Your task to perform on an android device: turn off smart reply in the gmail app Image 0: 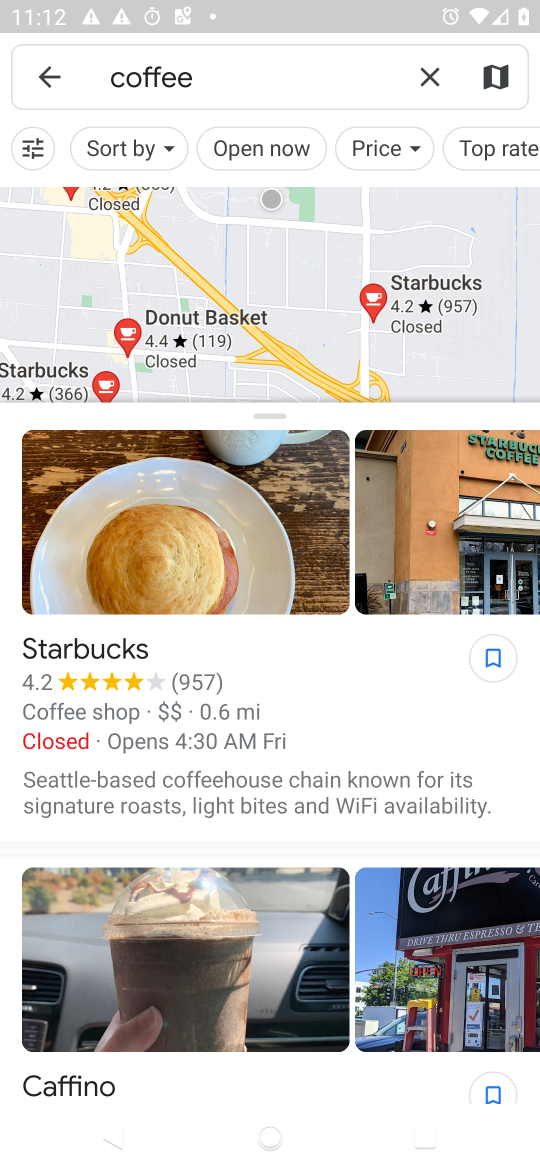
Step 0: press home button
Your task to perform on an android device: turn off smart reply in the gmail app Image 1: 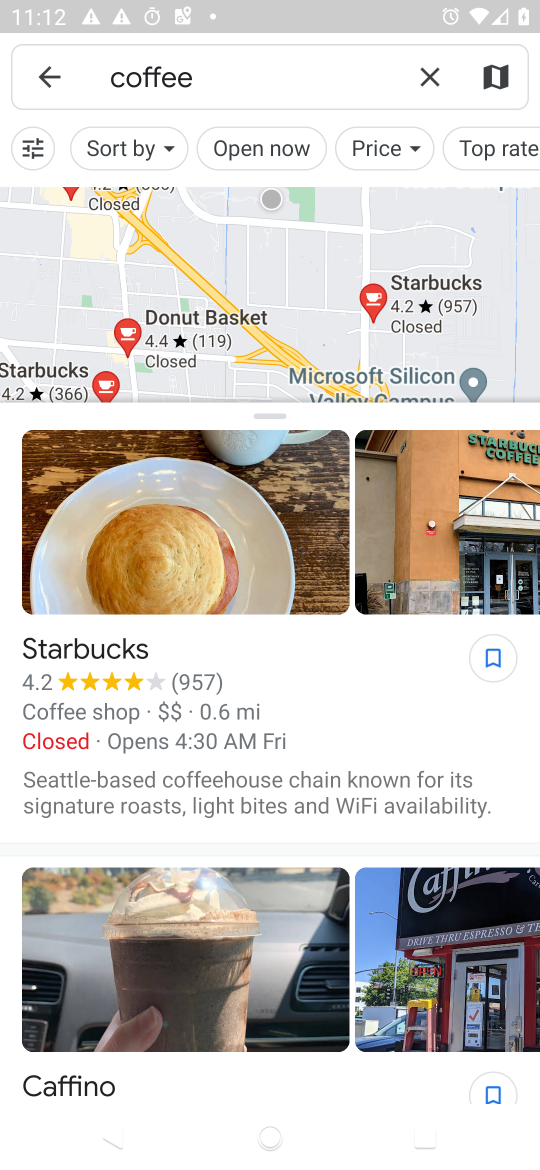
Step 1: click (359, 224)
Your task to perform on an android device: turn off smart reply in the gmail app Image 2: 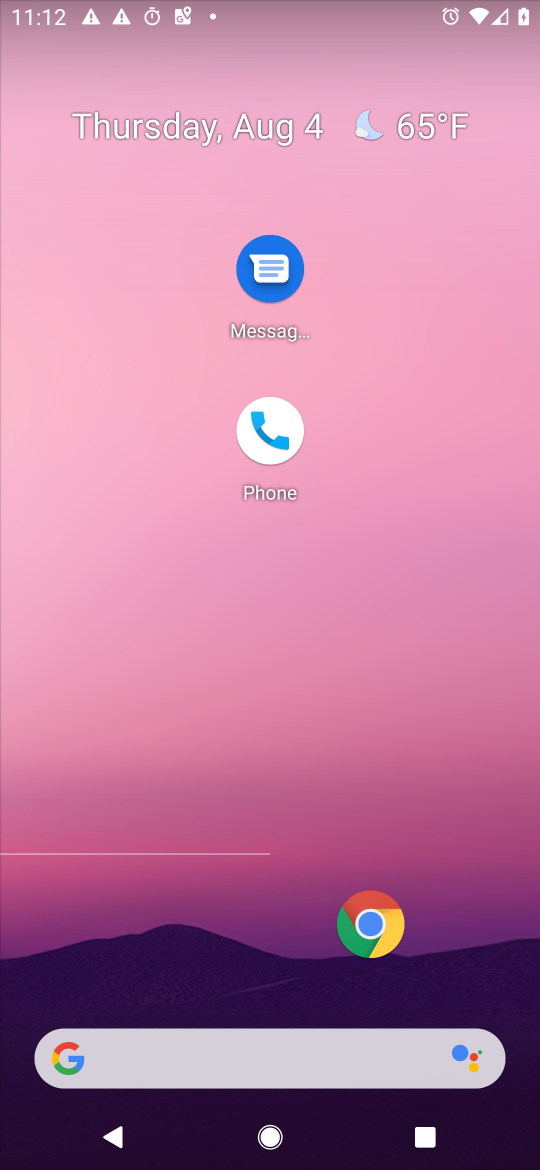
Step 2: drag from (314, 946) to (413, 159)
Your task to perform on an android device: turn off smart reply in the gmail app Image 3: 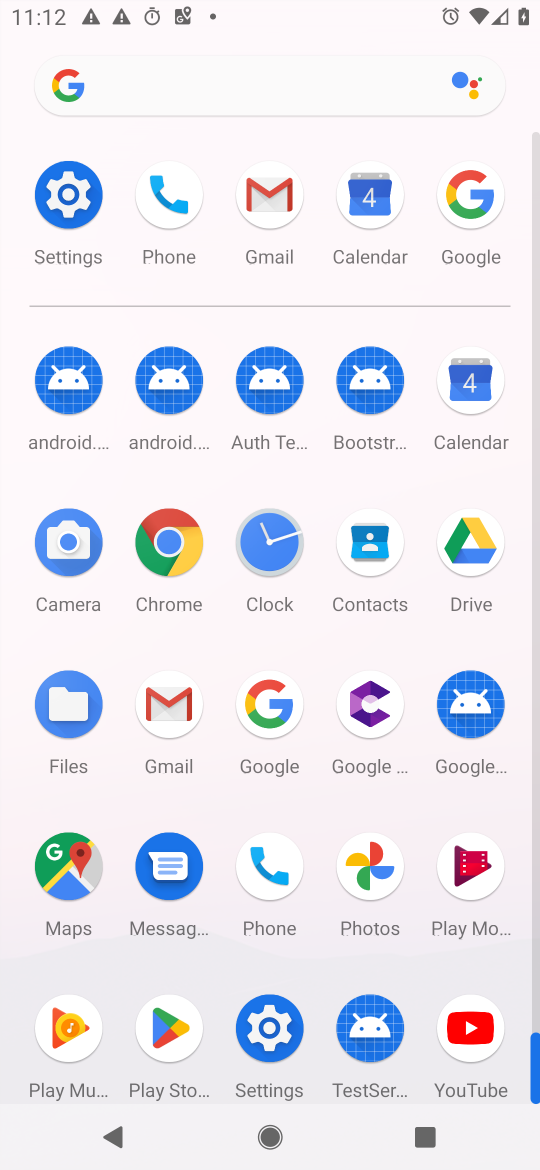
Step 3: click (168, 685)
Your task to perform on an android device: turn off smart reply in the gmail app Image 4: 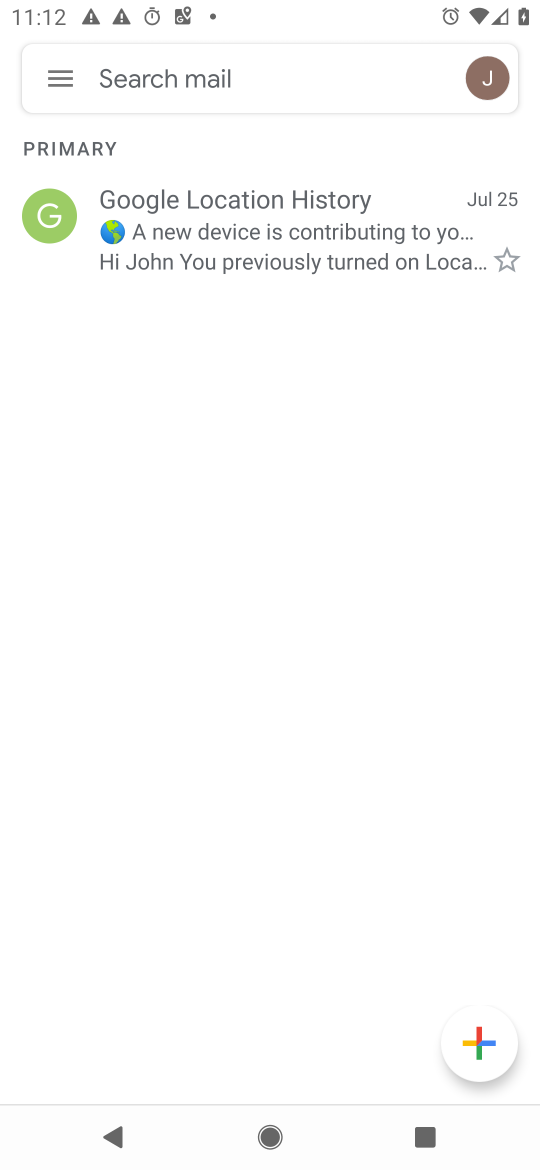
Step 4: click (43, 64)
Your task to perform on an android device: turn off smart reply in the gmail app Image 5: 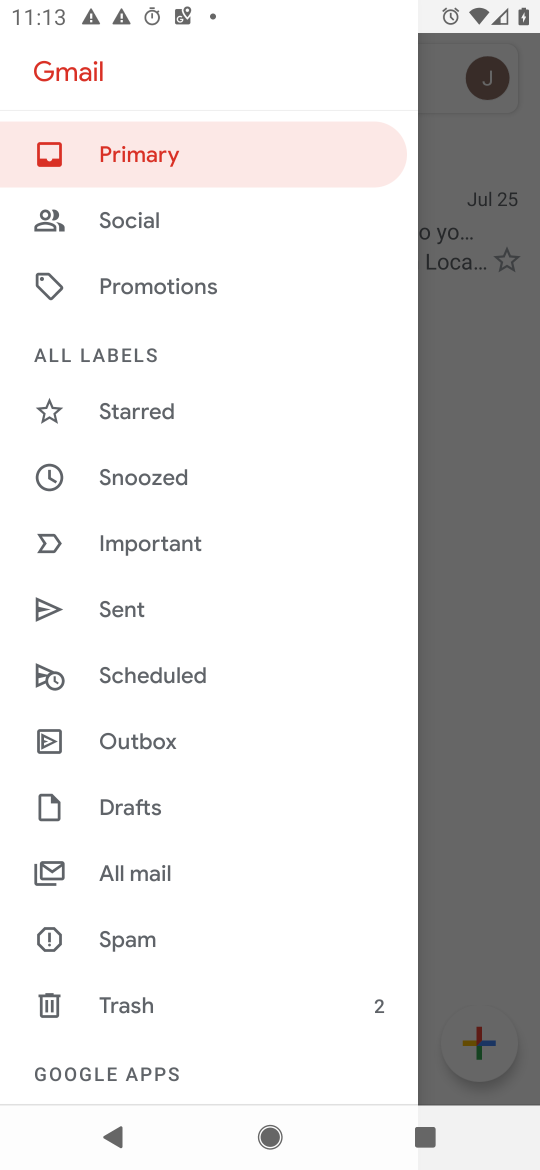
Step 5: drag from (198, 929) to (233, 323)
Your task to perform on an android device: turn off smart reply in the gmail app Image 6: 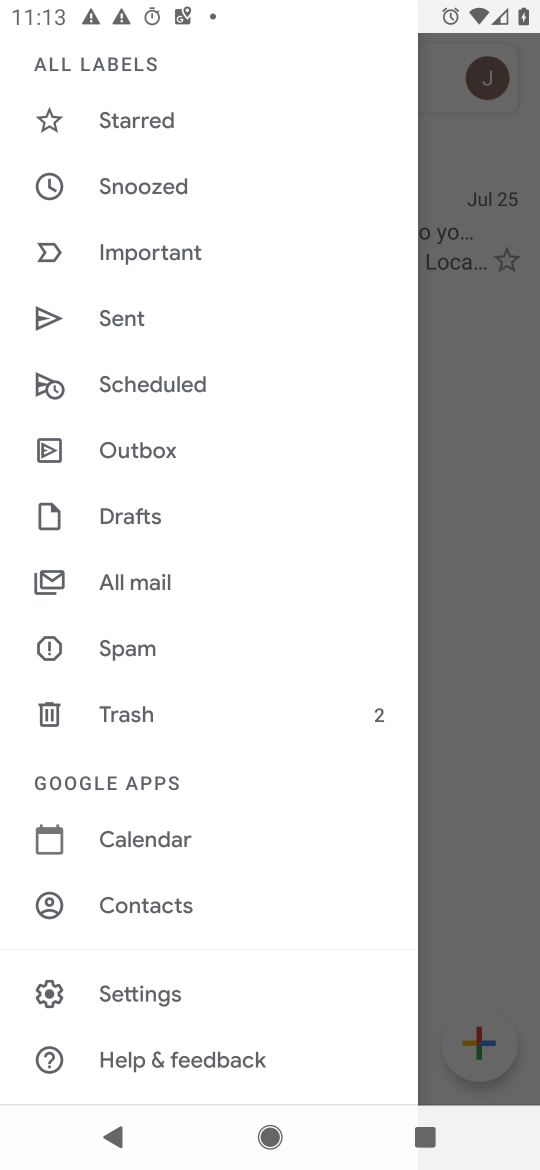
Step 6: click (149, 1002)
Your task to perform on an android device: turn off smart reply in the gmail app Image 7: 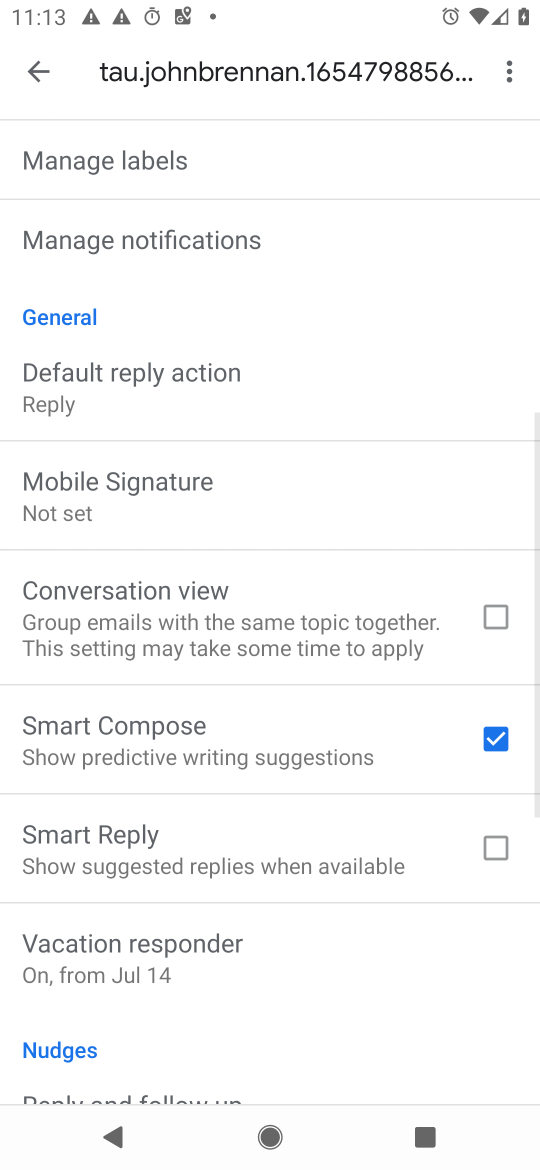
Step 7: task complete